Your task to perform on an android device: see sites visited before in the chrome app Image 0: 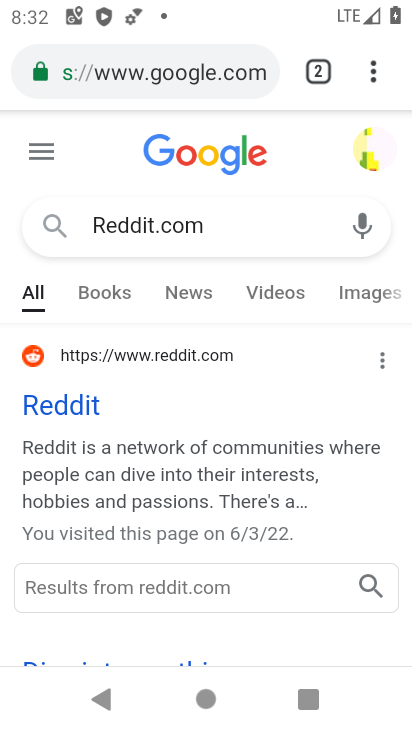
Step 0: click (371, 69)
Your task to perform on an android device: see sites visited before in the chrome app Image 1: 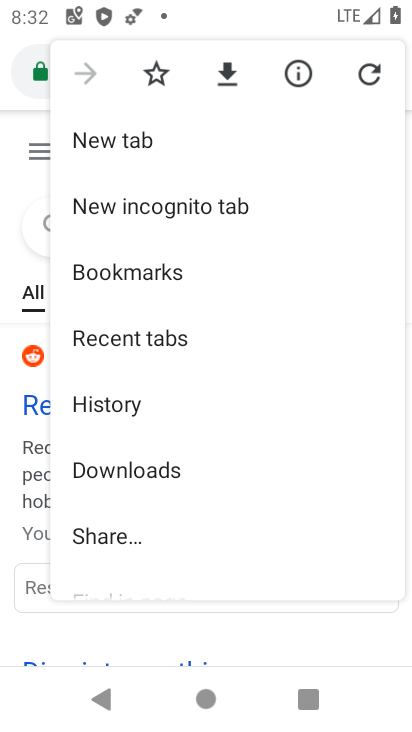
Step 1: click (109, 407)
Your task to perform on an android device: see sites visited before in the chrome app Image 2: 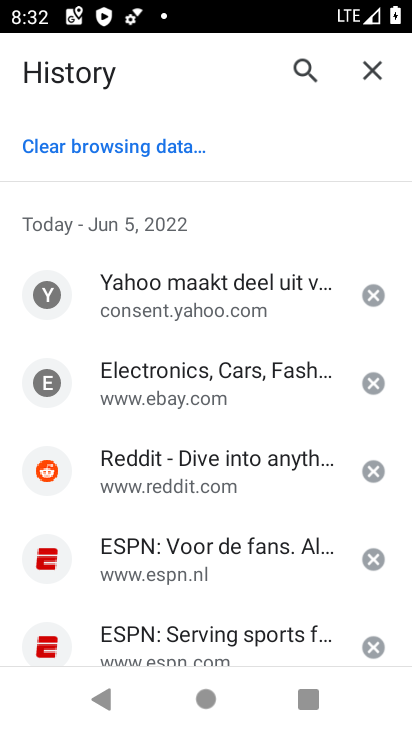
Step 2: task complete